Your task to perform on an android device: Go to settings Image 0: 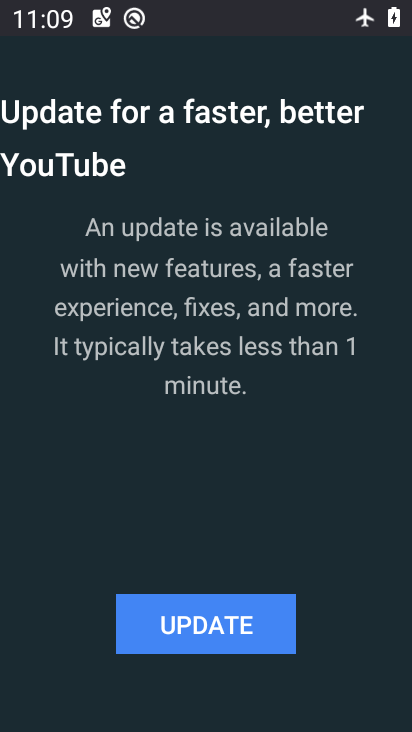
Step 0: press home button
Your task to perform on an android device: Go to settings Image 1: 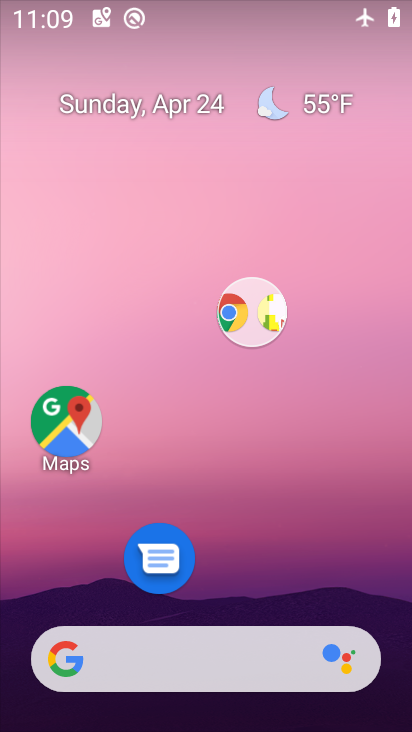
Step 1: drag from (293, 704) to (228, 28)
Your task to perform on an android device: Go to settings Image 2: 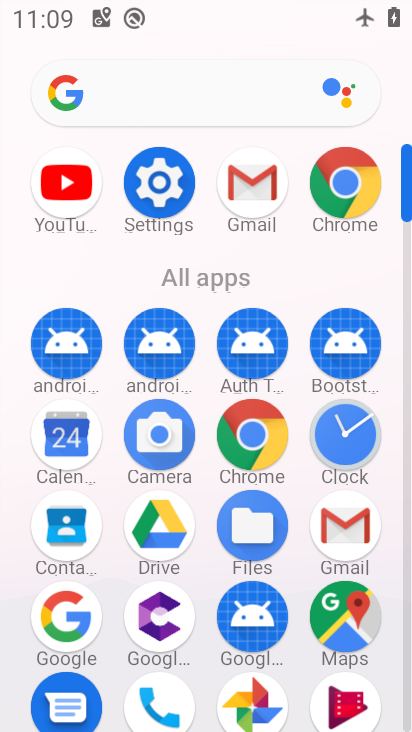
Step 2: click (162, 191)
Your task to perform on an android device: Go to settings Image 3: 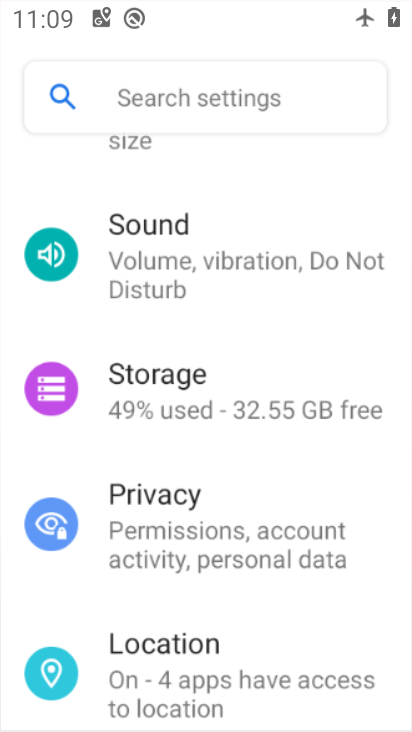
Step 3: click (162, 191)
Your task to perform on an android device: Go to settings Image 4: 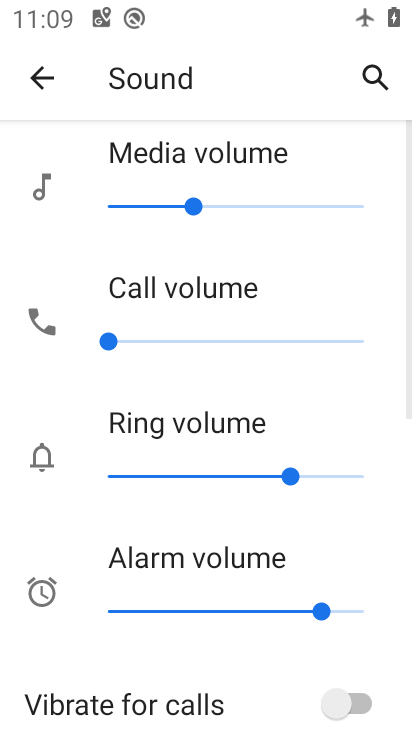
Step 4: click (32, 81)
Your task to perform on an android device: Go to settings Image 5: 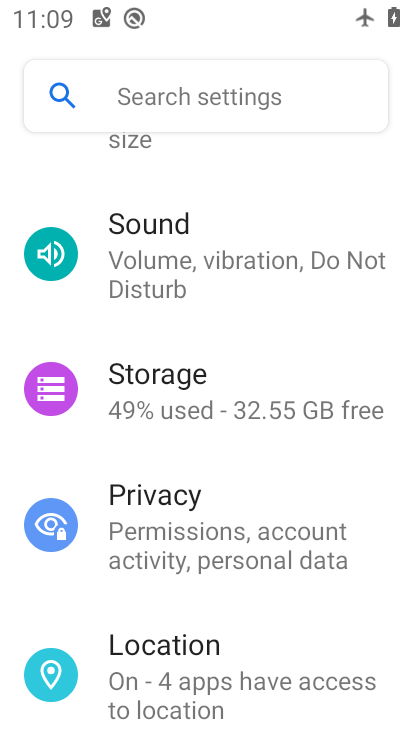
Step 5: drag from (165, 525) to (209, 618)
Your task to perform on an android device: Go to settings Image 6: 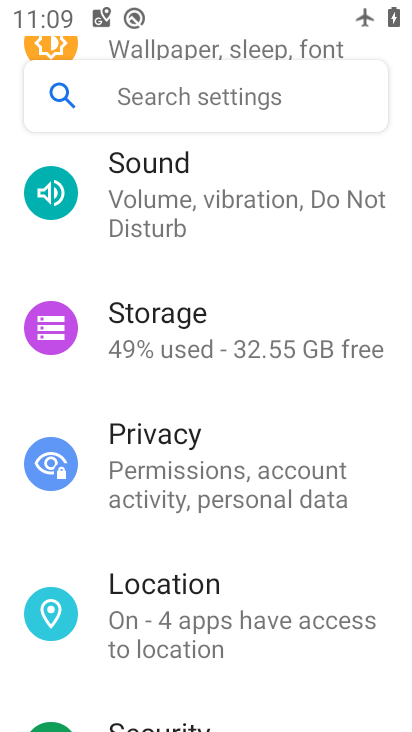
Step 6: drag from (167, 185) to (150, 516)
Your task to perform on an android device: Go to settings Image 7: 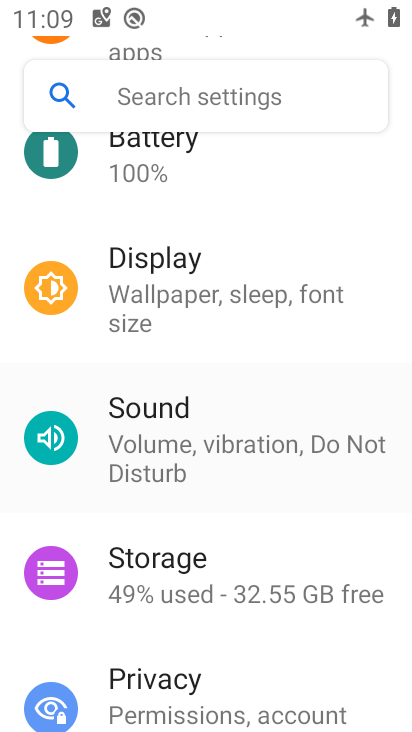
Step 7: drag from (189, 524) to (142, 623)
Your task to perform on an android device: Go to settings Image 8: 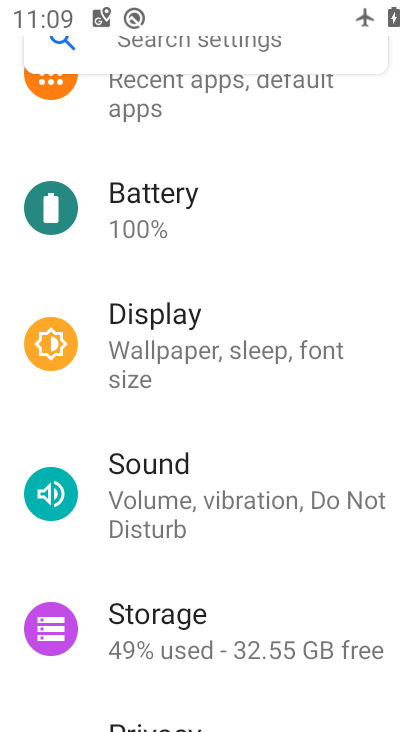
Step 8: drag from (146, 358) to (145, 455)
Your task to perform on an android device: Go to settings Image 9: 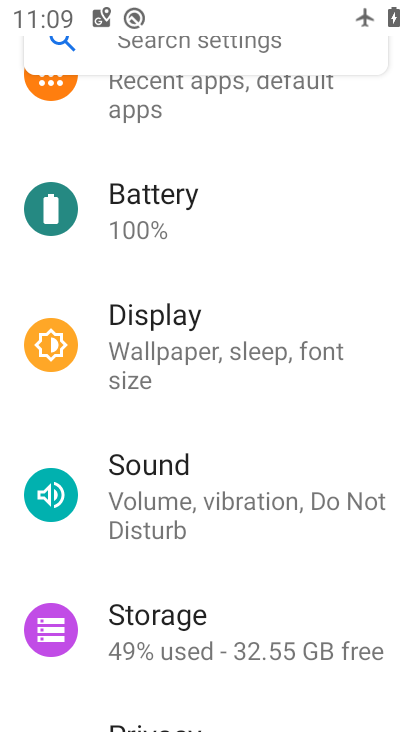
Step 9: drag from (173, 187) to (273, 567)
Your task to perform on an android device: Go to settings Image 10: 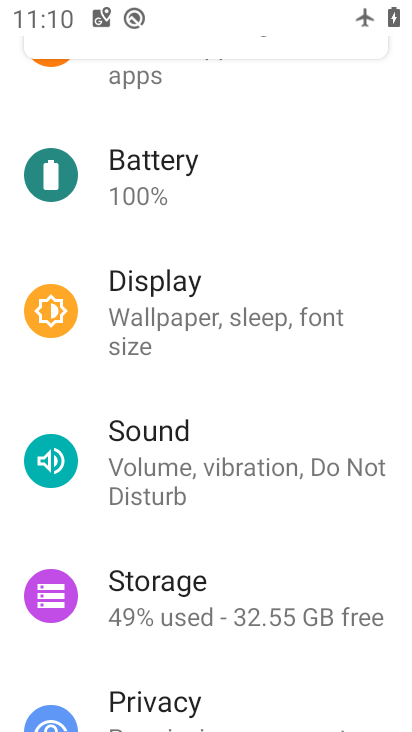
Step 10: click (207, 481)
Your task to perform on an android device: Go to settings Image 11: 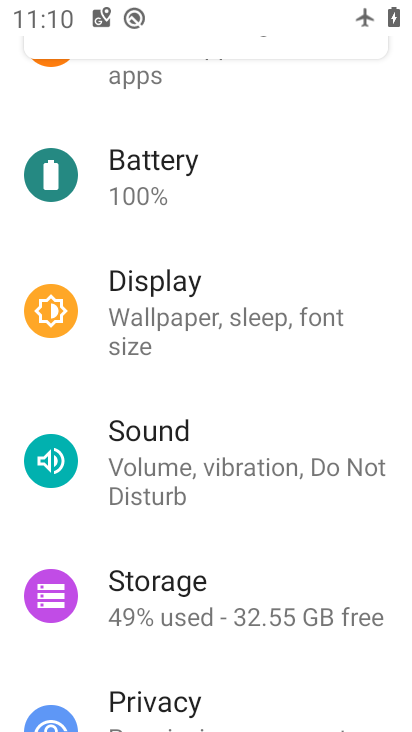
Step 11: drag from (177, 258) to (205, 702)
Your task to perform on an android device: Go to settings Image 12: 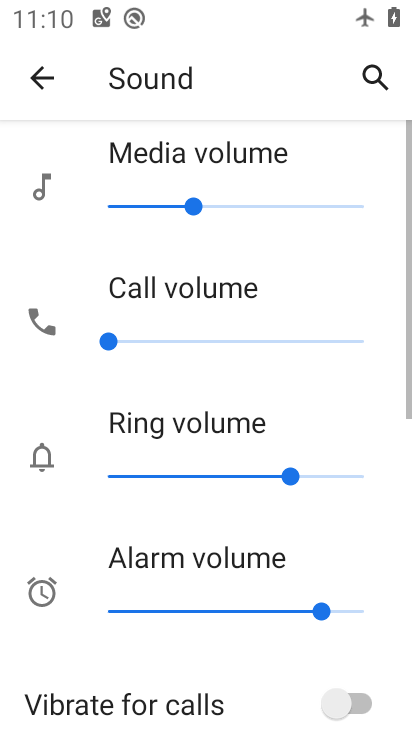
Step 12: click (42, 77)
Your task to perform on an android device: Go to settings Image 13: 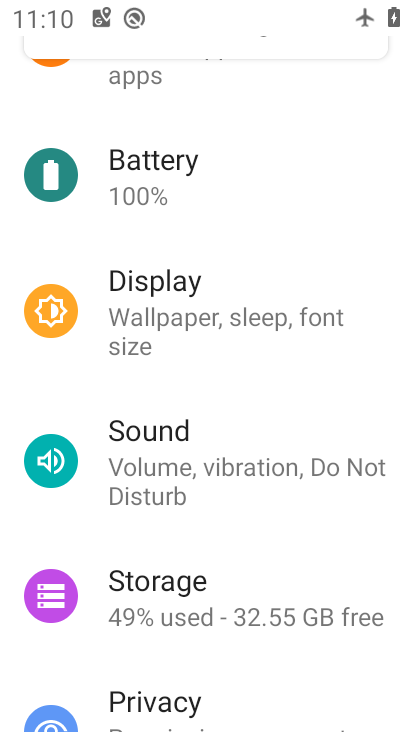
Step 13: drag from (228, 488) to (239, 537)
Your task to perform on an android device: Go to settings Image 14: 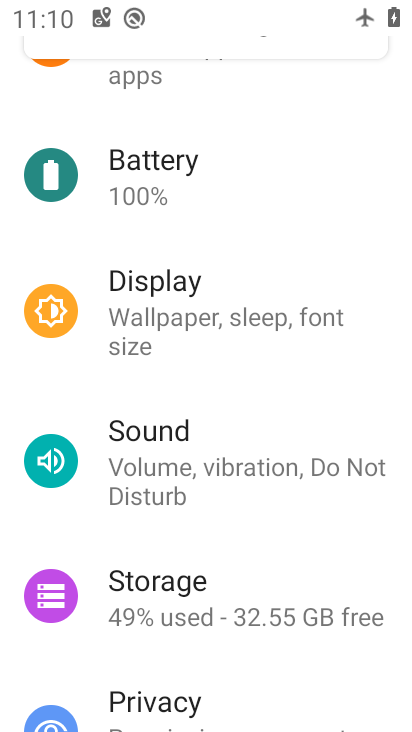
Step 14: drag from (210, 384) to (169, 527)
Your task to perform on an android device: Go to settings Image 15: 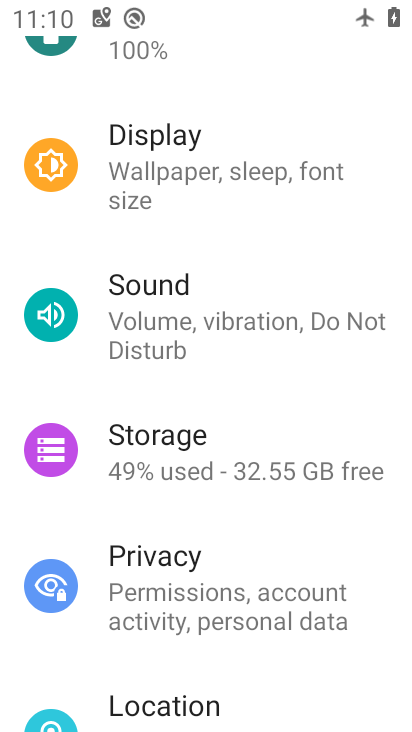
Step 15: click (190, 574)
Your task to perform on an android device: Go to settings Image 16: 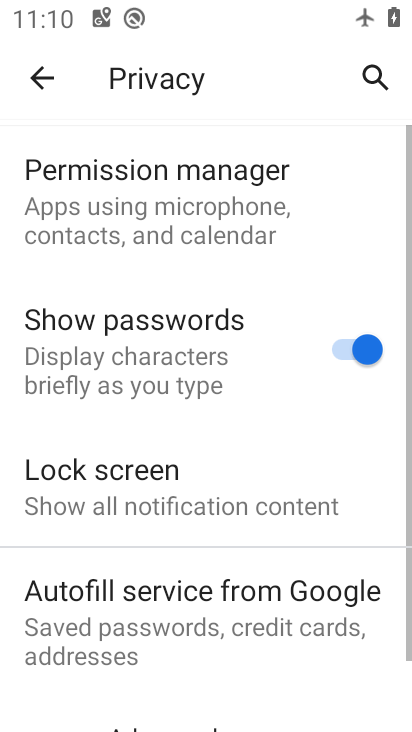
Step 16: click (44, 79)
Your task to perform on an android device: Go to settings Image 17: 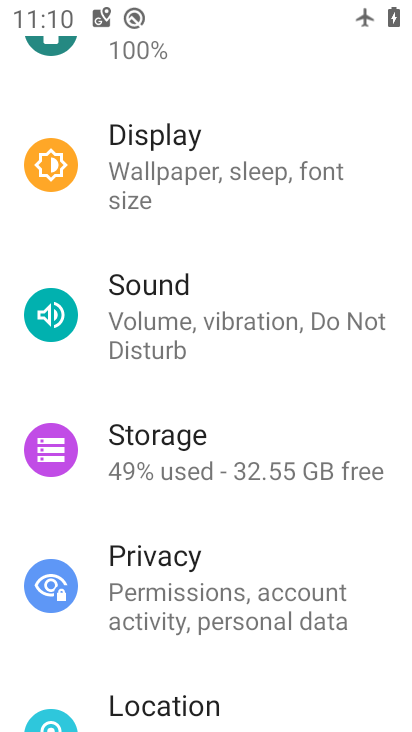
Step 17: drag from (167, 529) to (200, 546)
Your task to perform on an android device: Go to settings Image 18: 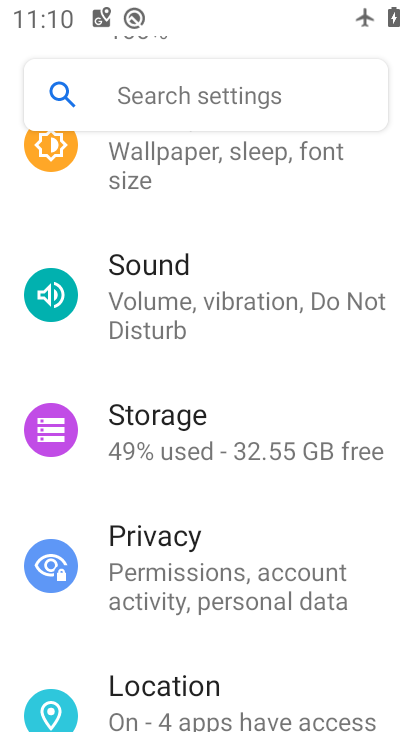
Step 18: drag from (176, 228) to (208, 706)
Your task to perform on an android device: Go to settings Image 19: 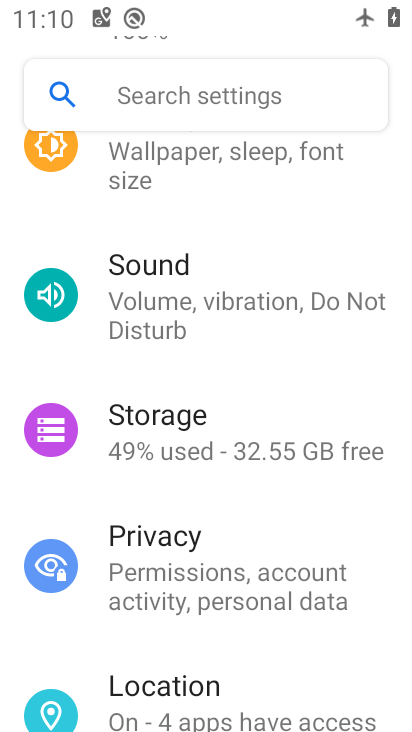
Step 19: drag from (180, 225) to (215, 428)
Your task to perform on an android device: Go to settings Image 20: 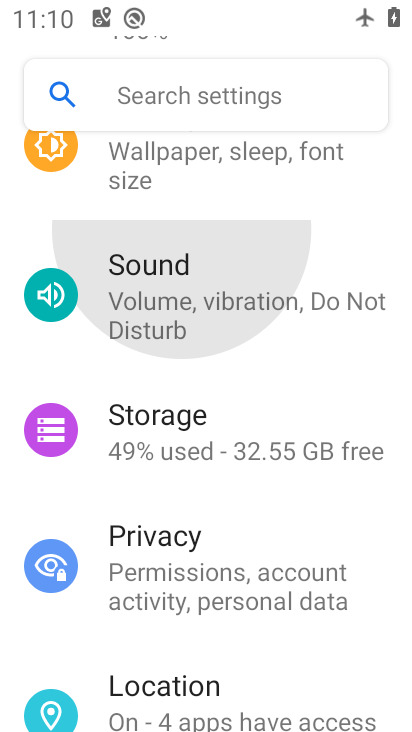
Step 20: drag from (201, 491) to (214, 572)
Your task to perform on an android device: Go to settings Image 21: 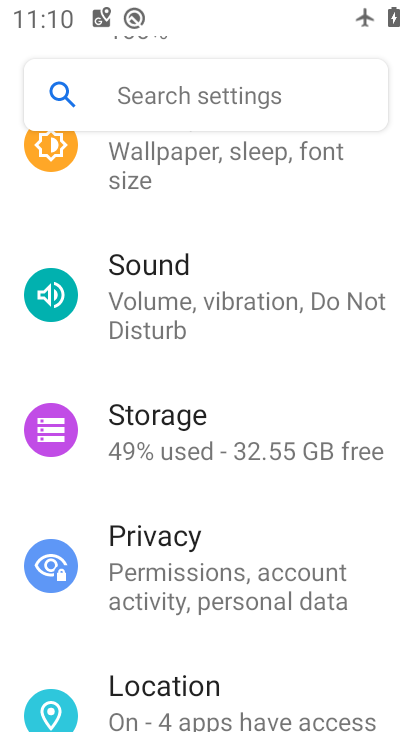
Step 21: press home button
Your task to perform on an android device: Go to settings Image 22: 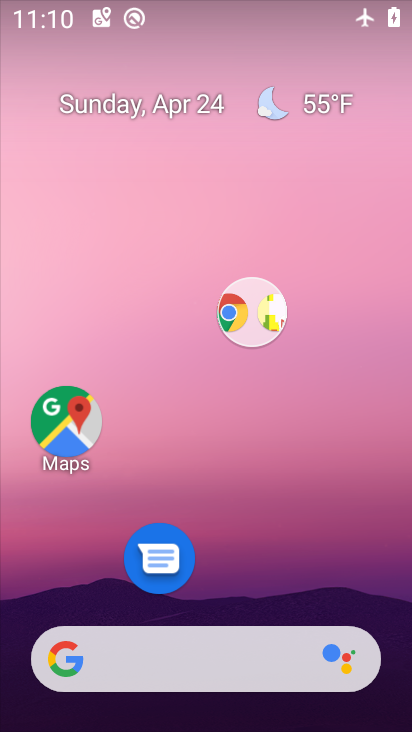
Step 22: drag from (250, 612) to (250, 14)
Your task to perform on an android device: Go to settings Image 23: 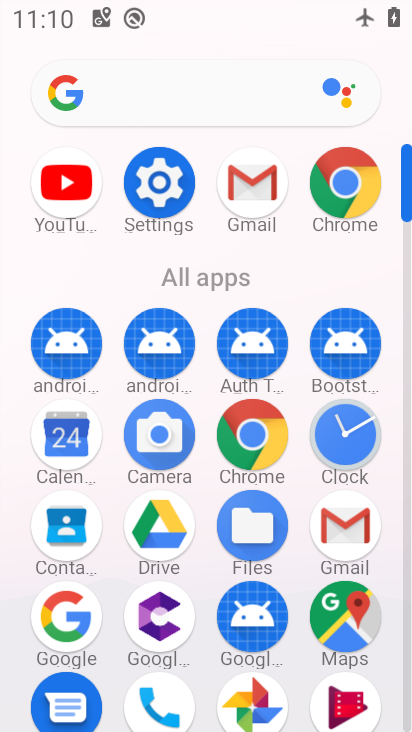
Step 23: click (153, 188)
Your task to perform on an android device: Go to settings Image 24: 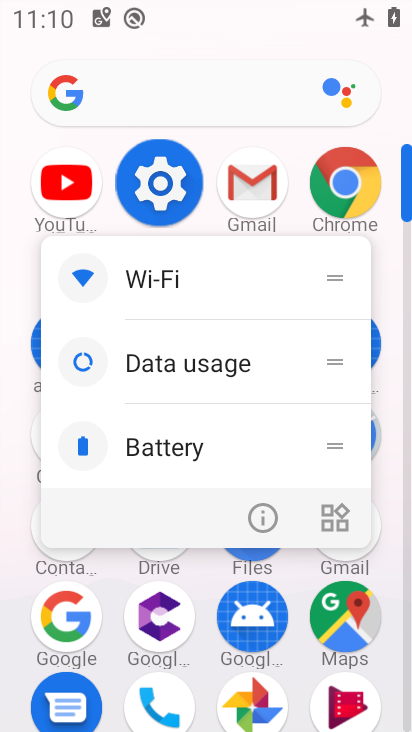
Step 24: click (150, 184)
Your task to perform on an android device: Go to settings Image 25: 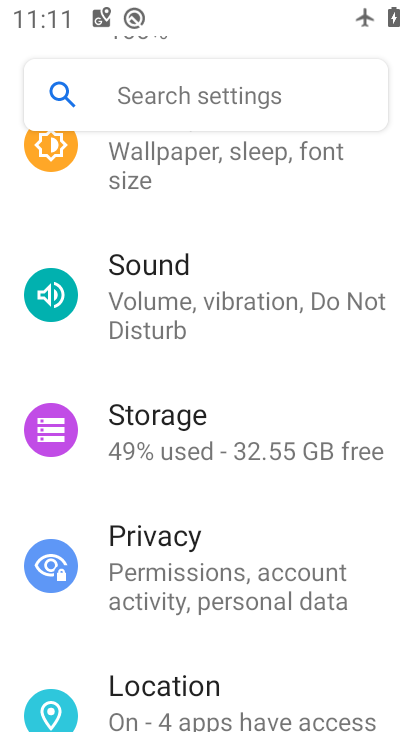
Step 25: task complete